Your task to perform on an android device: Open eBay Image 0: 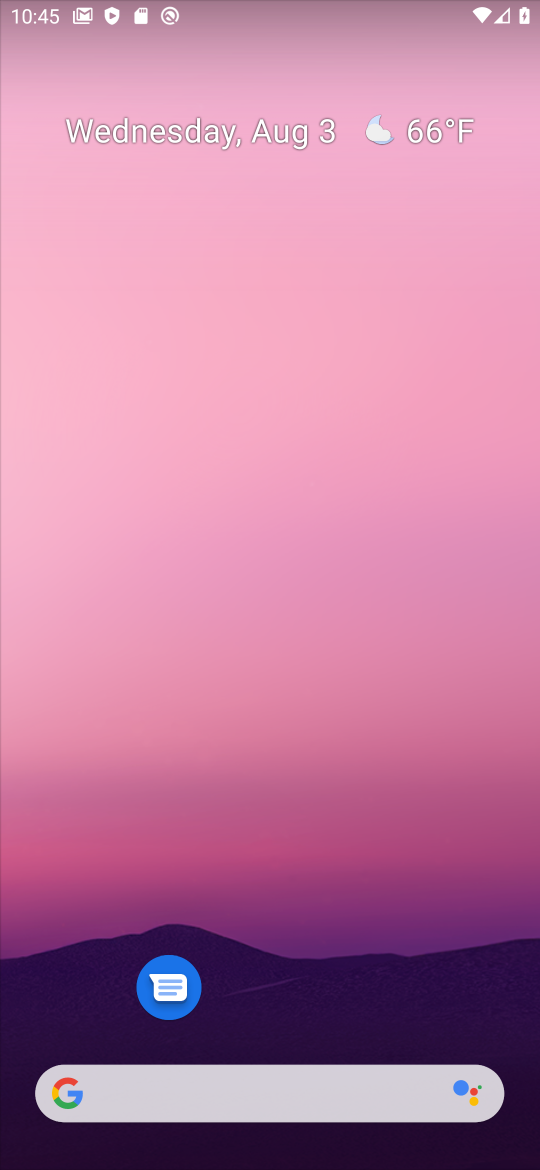
Step 0: click (276, 206)
Your task to perform on an android device: Open eBay Image 1: 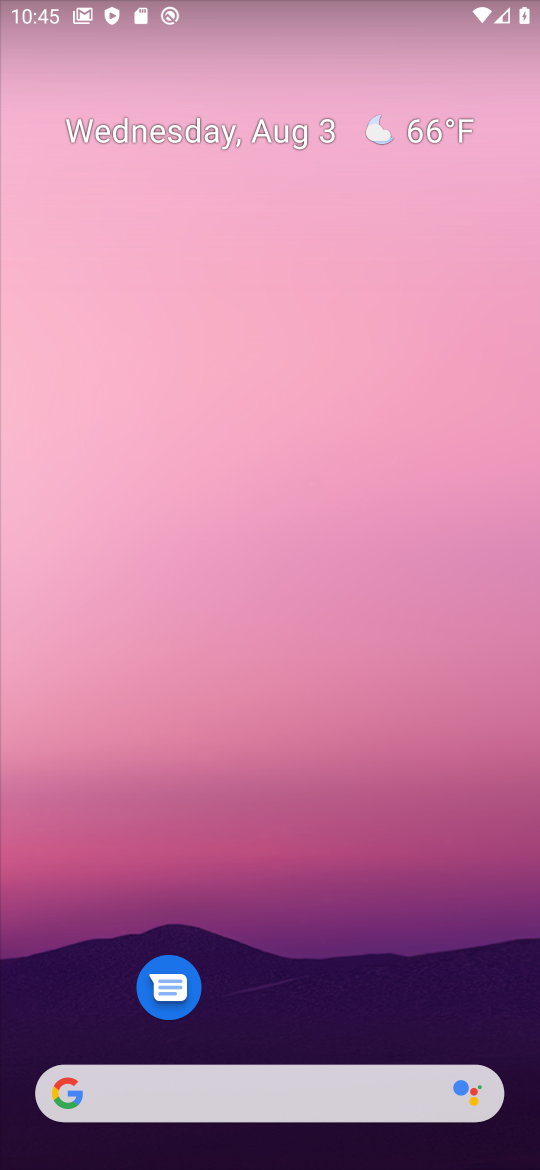
Step 1: click (299, 19)
Your task to perform on an android device: Open eBay Image 2: 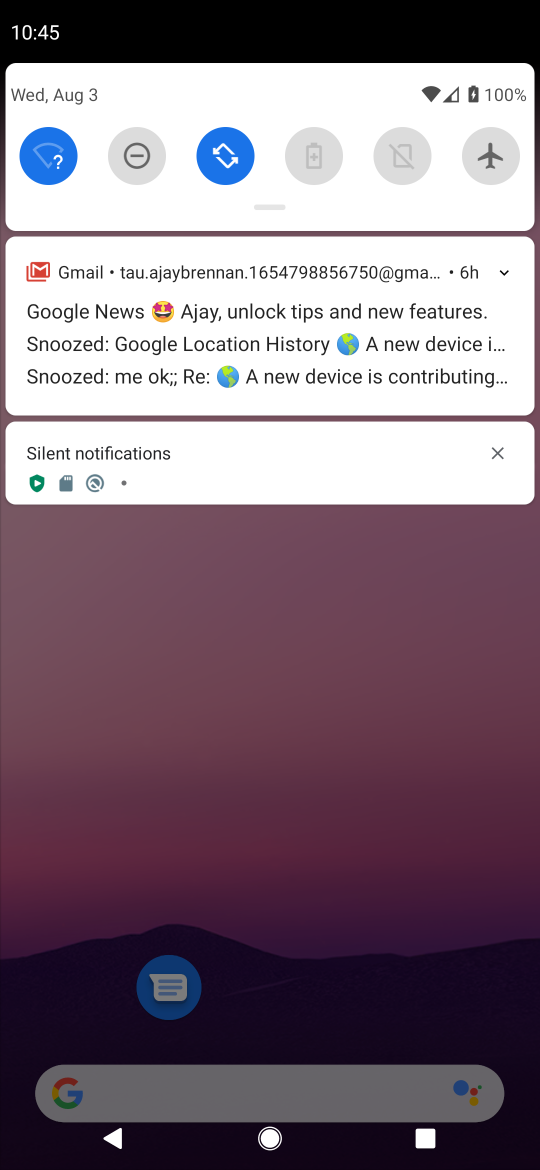
Step 2: click (214, 208)
Your task to perform on an android device: Open eBay Image 3: 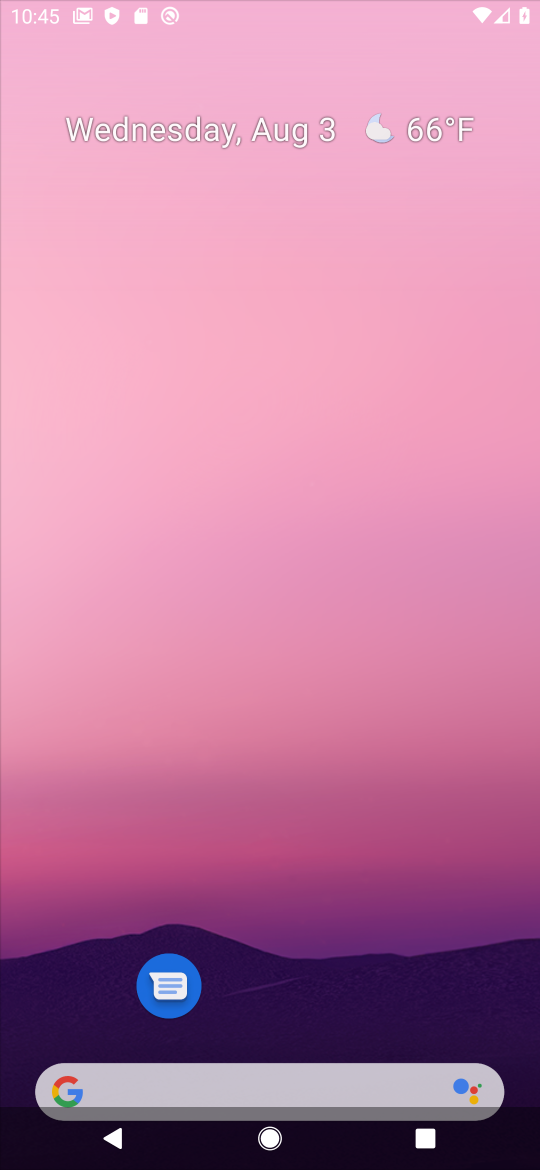
Step 3: drag from (223, 321) to (227, 122)
Your task to perform on an android device: Open eBay Image 4: 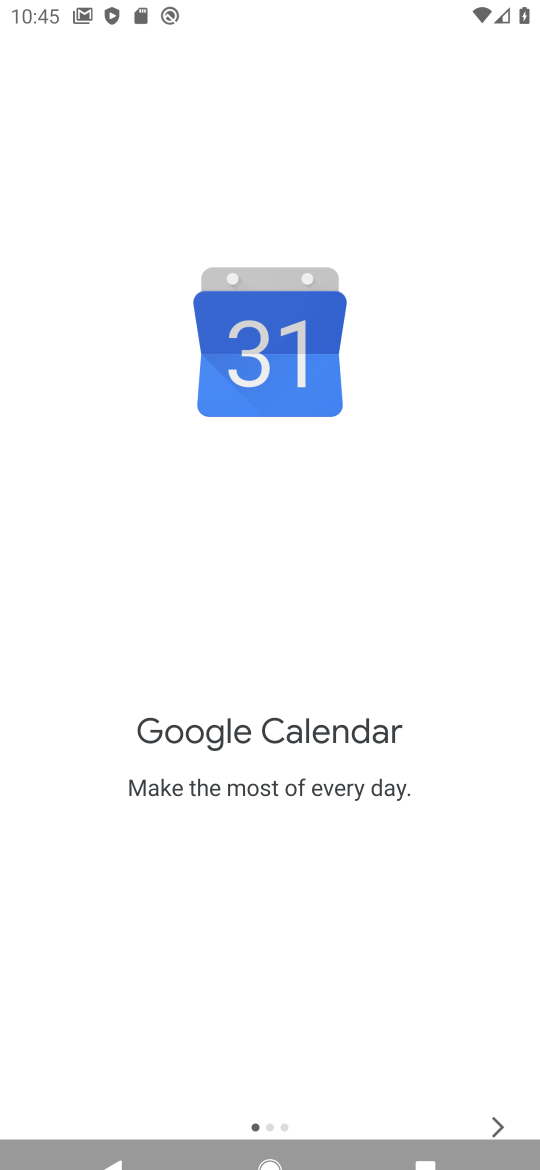
Step 4: drag from (280, 766) to (282, 124)
Your task to perform on an android device: Open eBay Image 5: 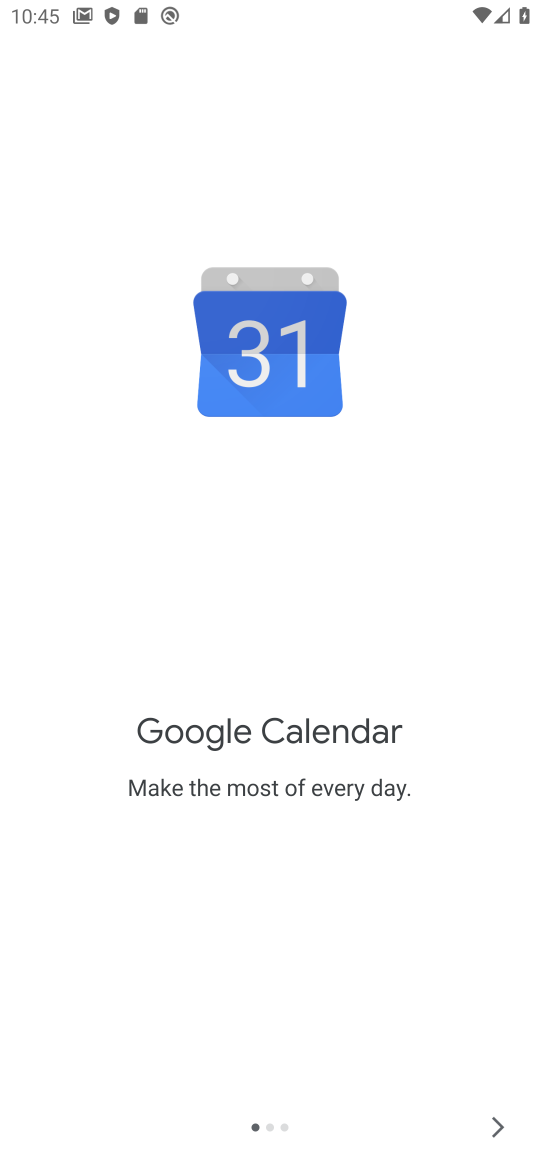
Step 5: press back button
Your task to perform on an android device: Open eBay Image 6: 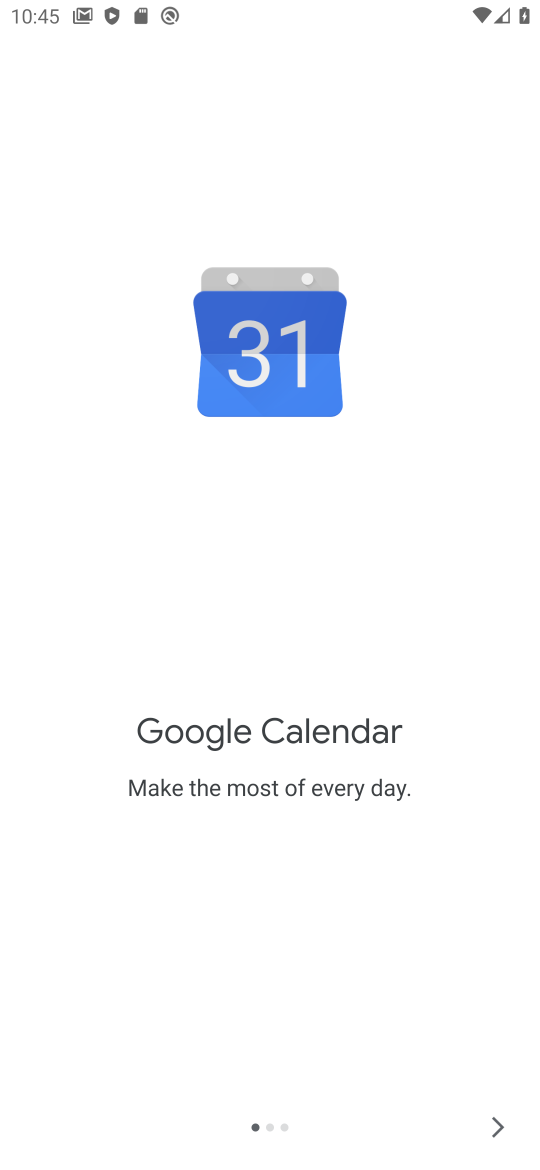
Step 6: press back button
Your task to perform on an android device: Open eBay Image 7: 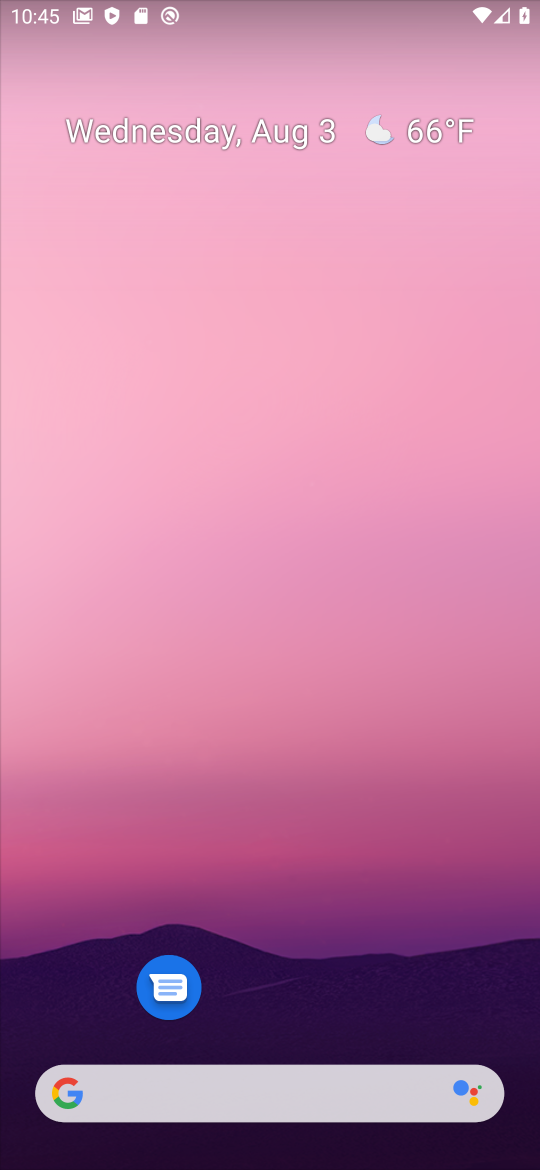
Step 7: drag from (279, 620) to (242, 223)
Your task to perform on an android device: Open eBay Image 8: 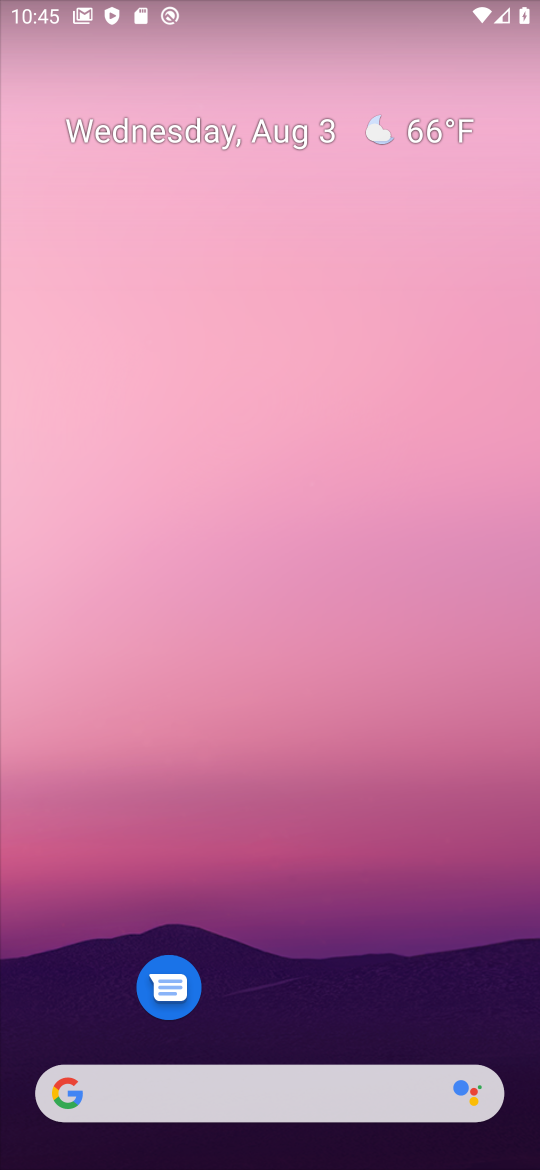
Step 8: click (231, 202)
Your task to perform on an android device: Open eBay Image 9: 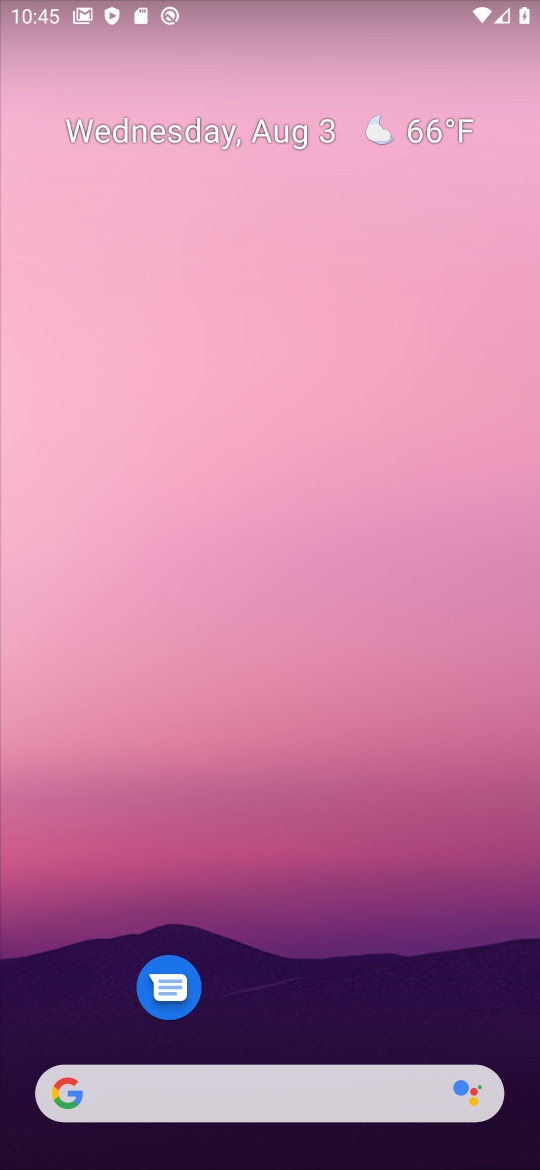
Step 9: click (201, 472)
Your task to perform on an android device: Open eBay Image 10: 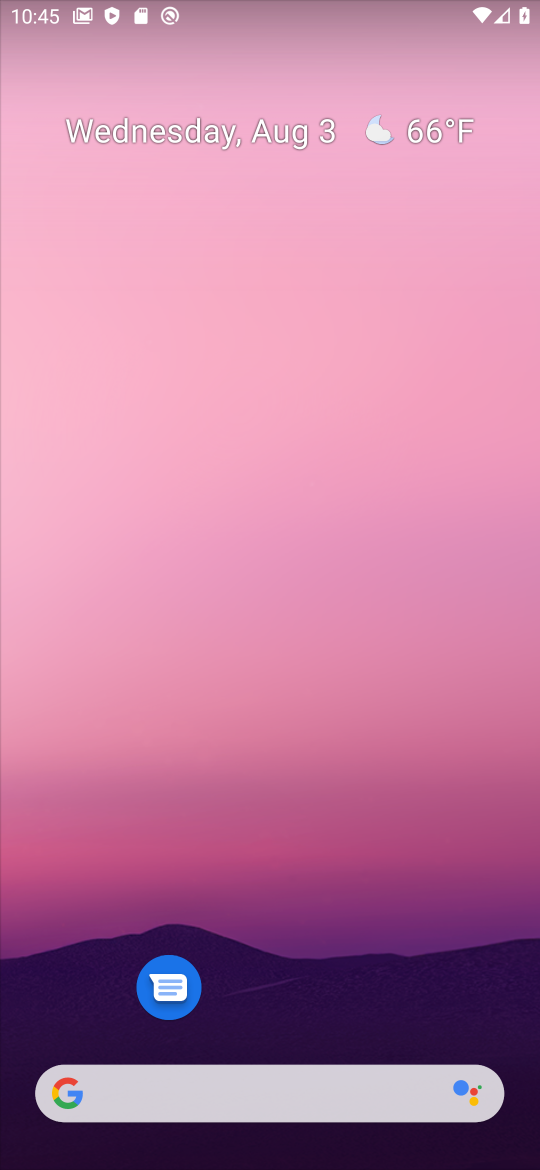
Step 10: drag from (294, 791) to (368, 64)
Your task to perform on an android device: Open eBay Image 11: 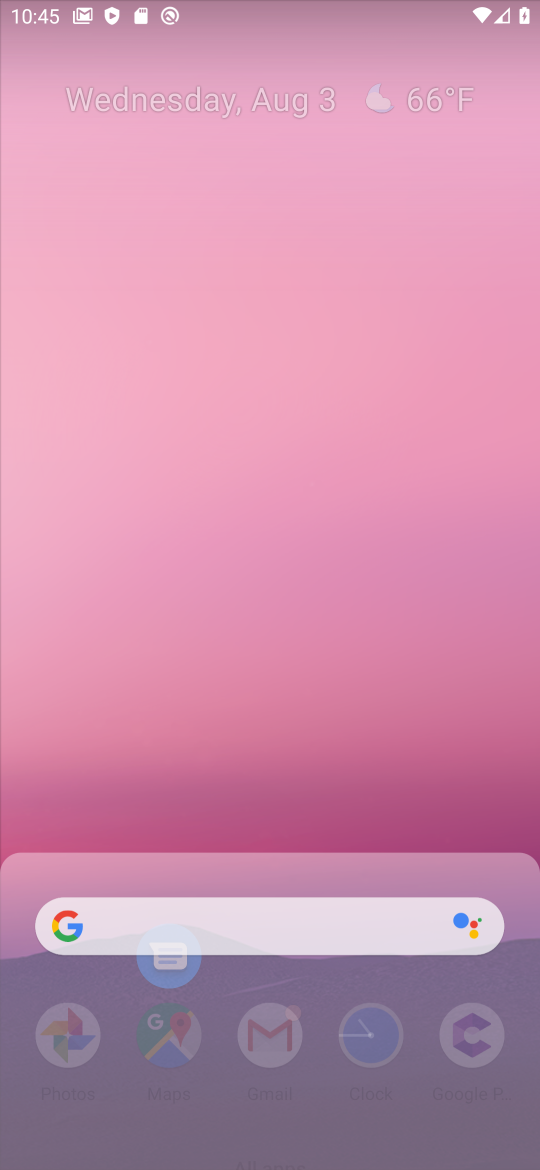
Step 11: drag from (368, 409) to (375, 247)
Your task to perform on an android device: Open eBay Image 12: 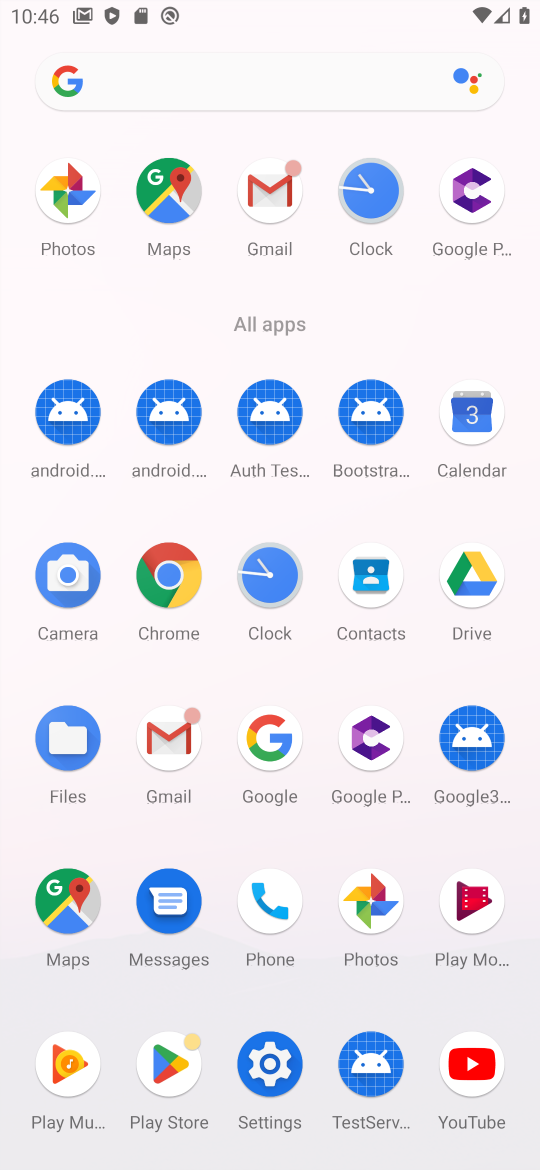
Step 12: click (173, 584)
Your task to perform on an android device: Open eBay Image 13: 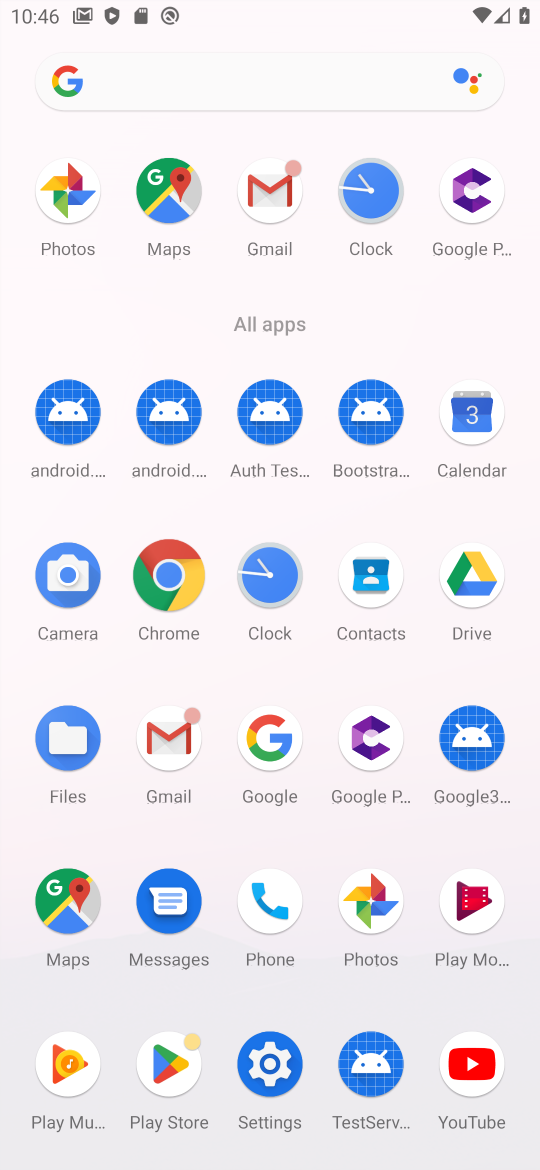
Step 13: click (164, 590)
Your task to perform on an android device: Open eBay Image 14: 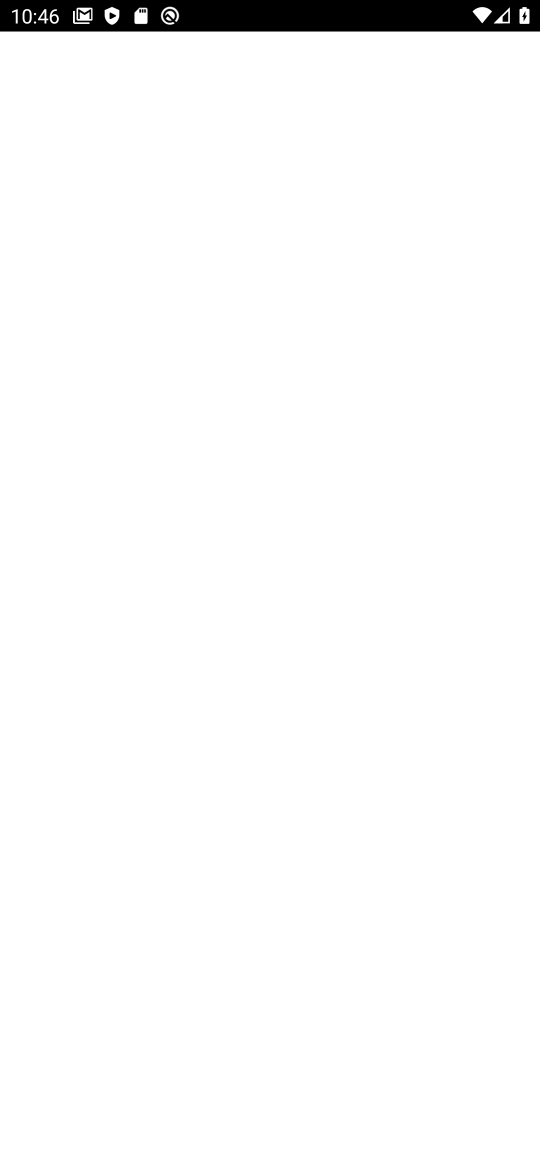
Step 14: click (167, 590)
Your task to perform on an android device: Open eBay Image 15: 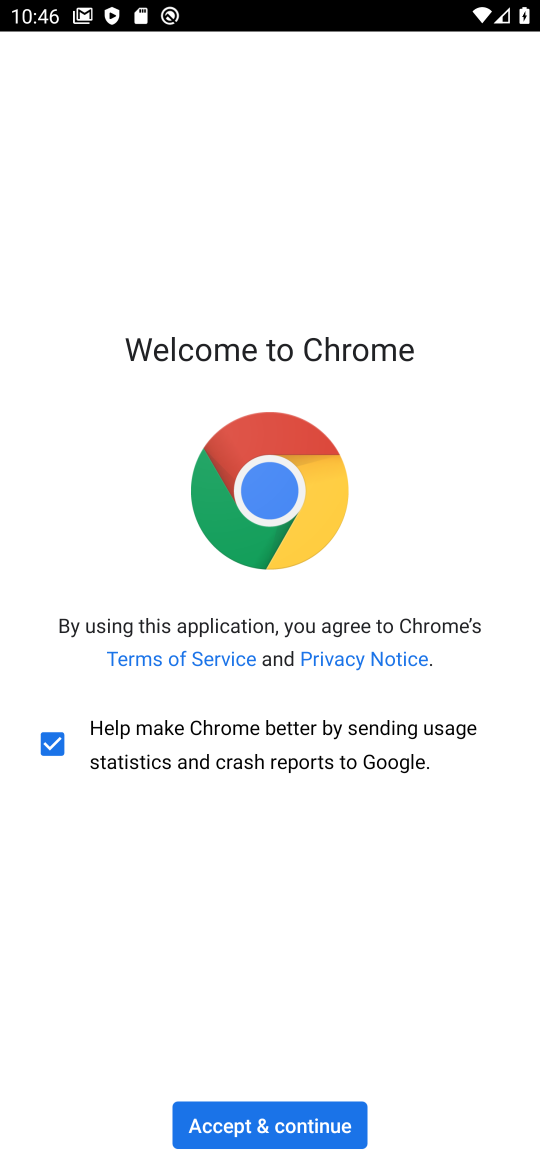
Step 15: click (270, 1116)
Your task to perform on an android device: Open eBay Image 16: 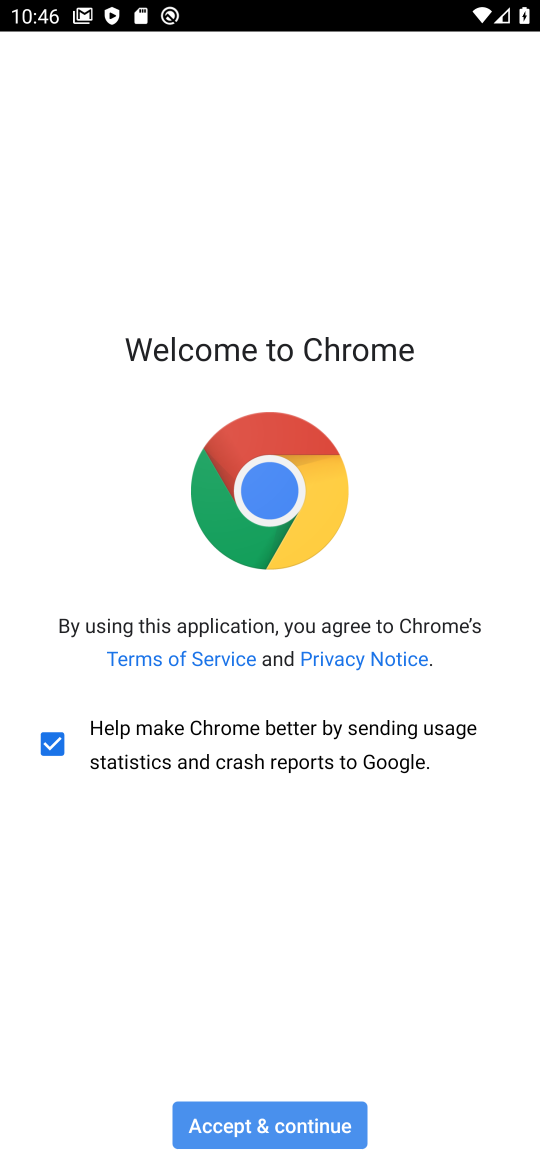
Step 16: click (298, 1126)
Your task to perform on an android device: Open eBay Image 17: 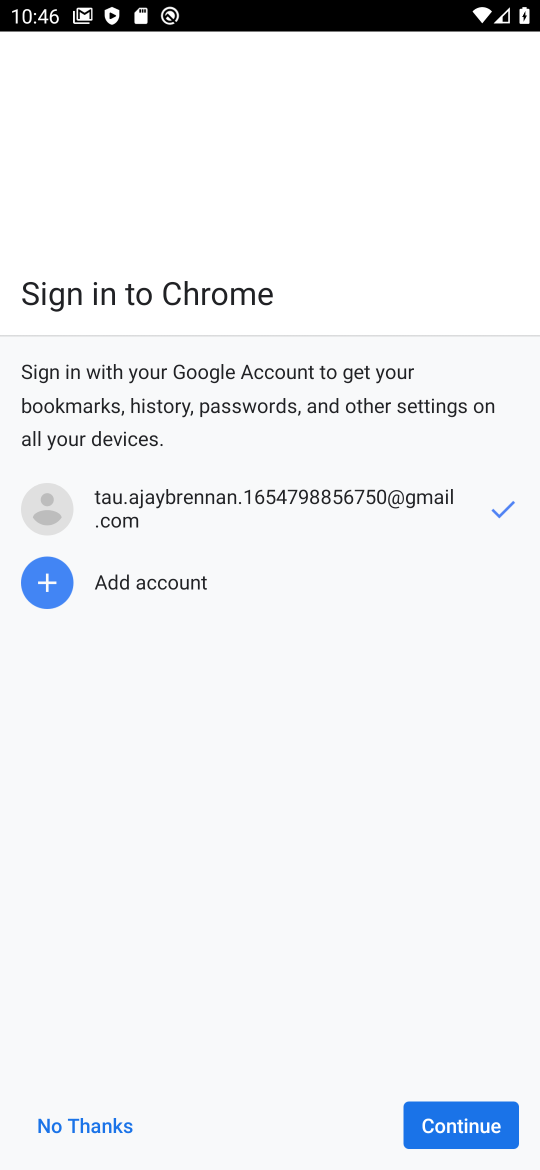
Step 17: click (120, 1107)
Your task to perform on an android device: Open eBay Image 18: 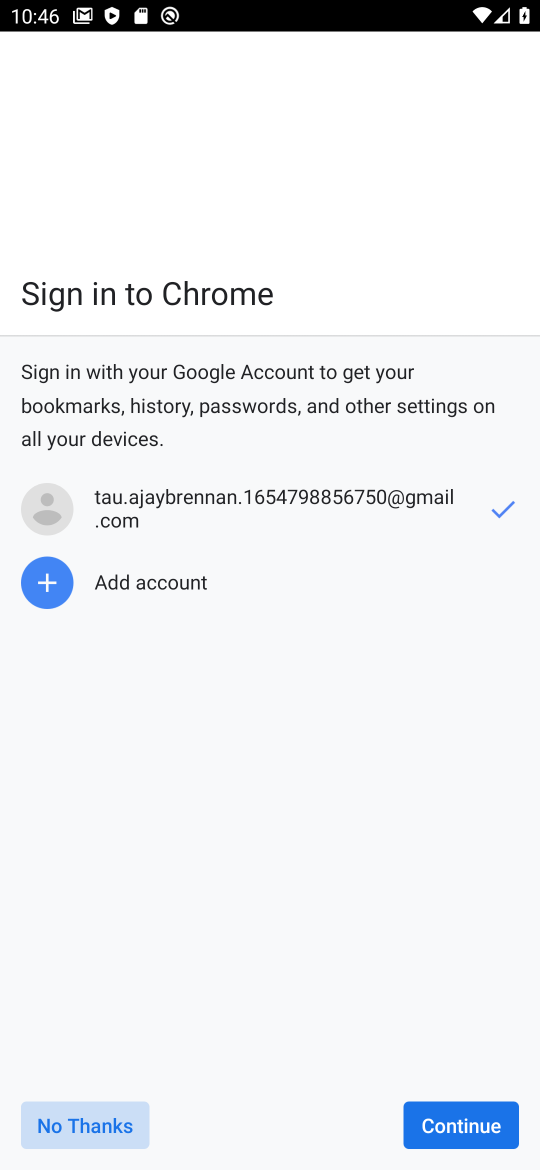
Step 18: click (116, 1114)
Your task to perform on an android device: Open eBay Image 19: 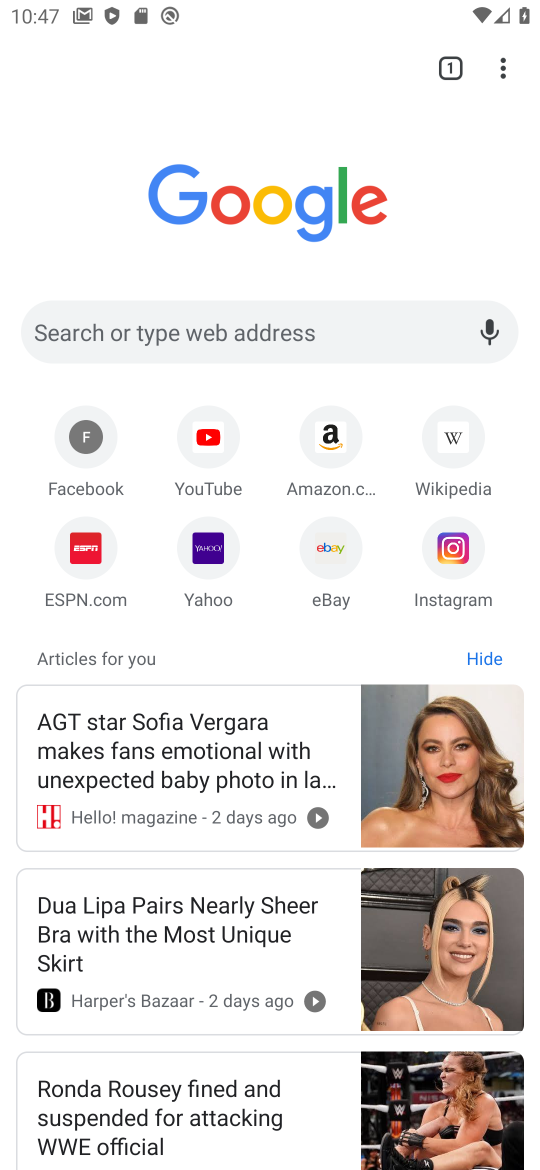
Step 19: click (337, 566)
Your task to perform on an android device: Open eBay Image 20: 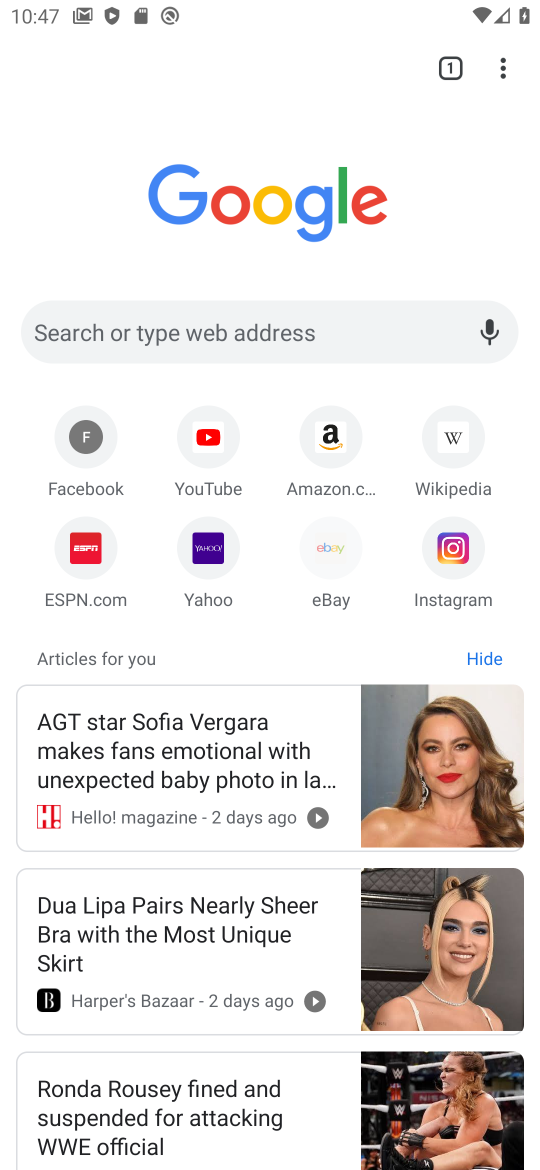
Step 20: click (335, 548)
Your task to perform on an android device: Open eBay Image 21: 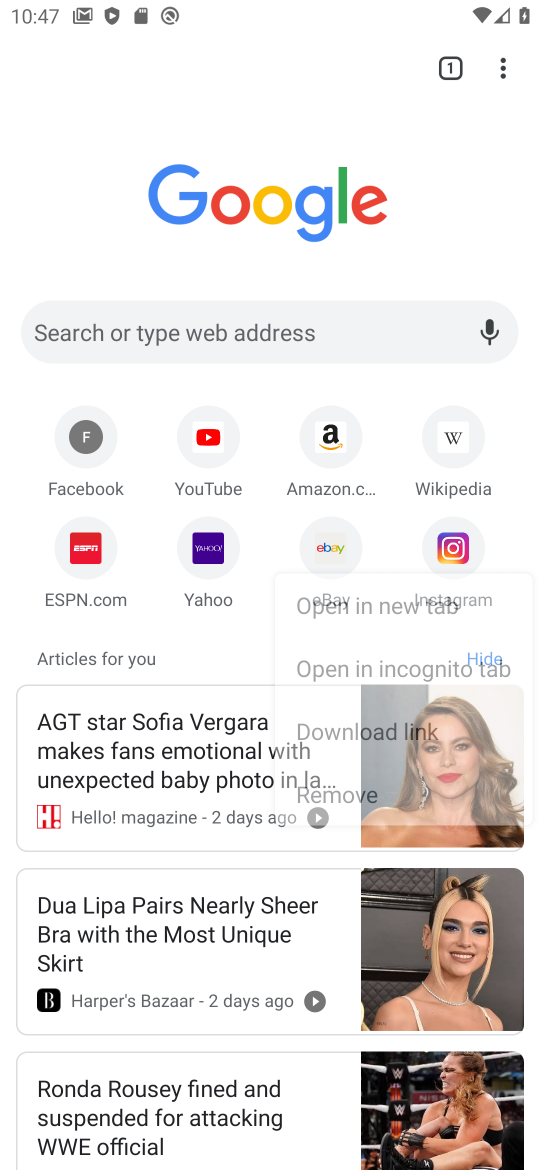
Step 21: click (340, 546)
Your task to perform on an android device: Open eBay Image 22: 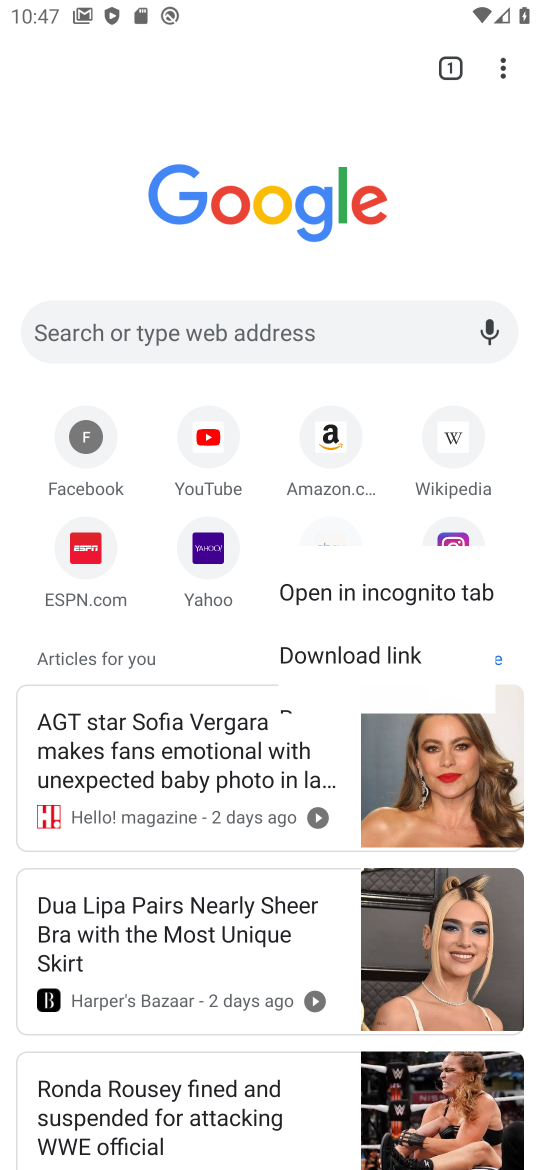
Step 22: click (318, 558)
Your task to perform on an android device: Open eBay Image 23: 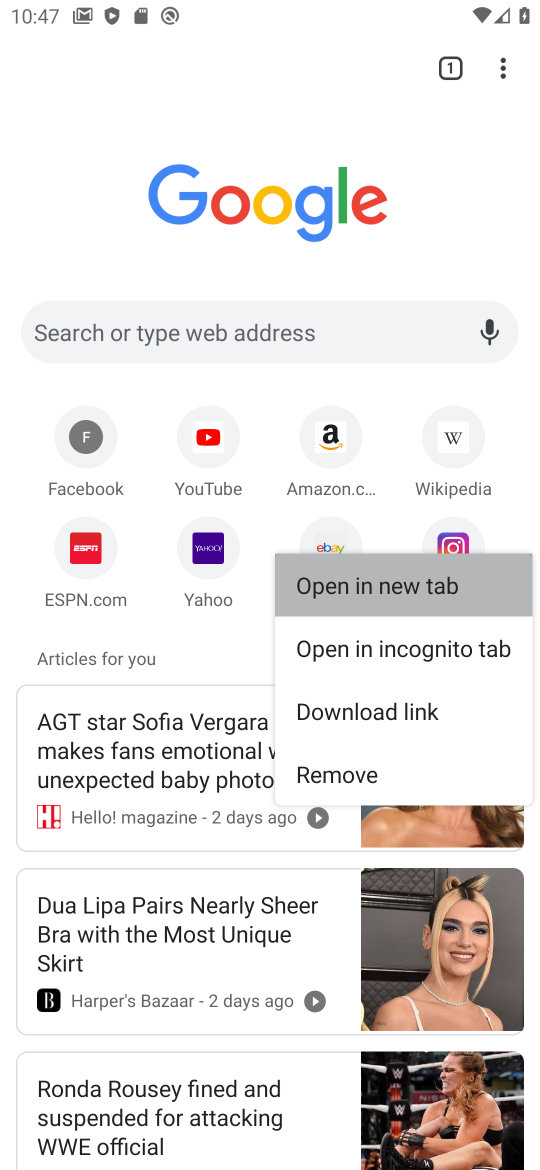
Step 23: click (318, 558)
Your task to perform on an android device: Open eBay Image 24: 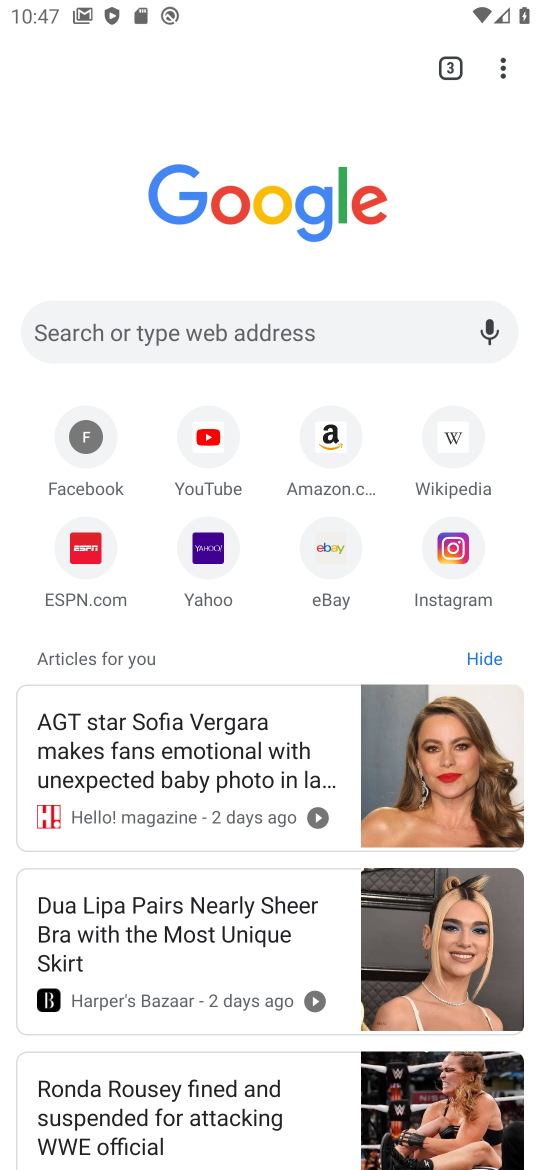
Step 24: click (290, 540)
Your task to perform on an android device: Open eBay Image 25: 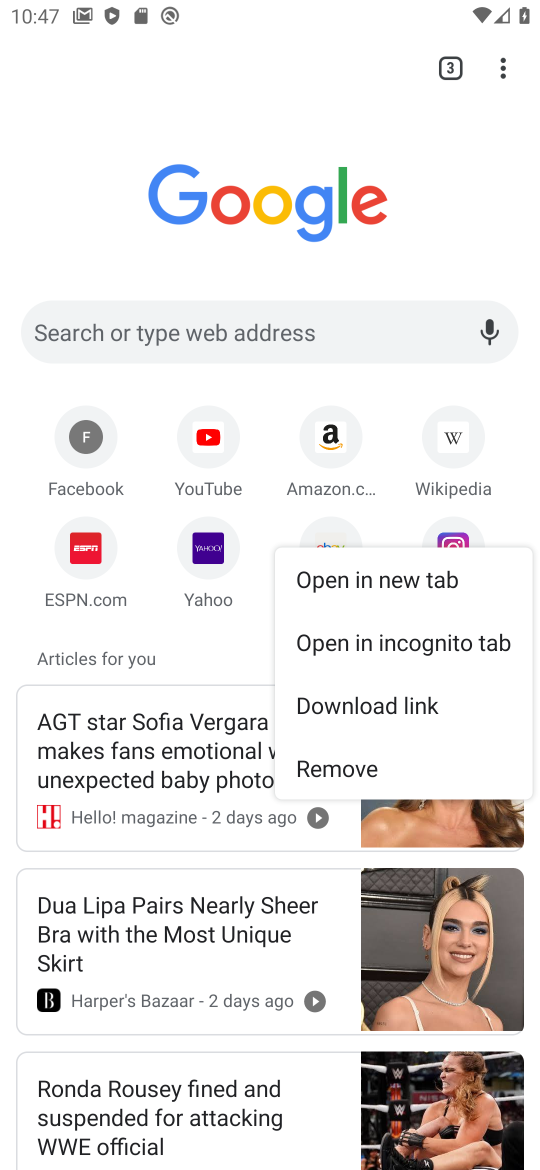
Step 25: click (307, 518)
Your task to perform on an android device: Open eBay Image 26: 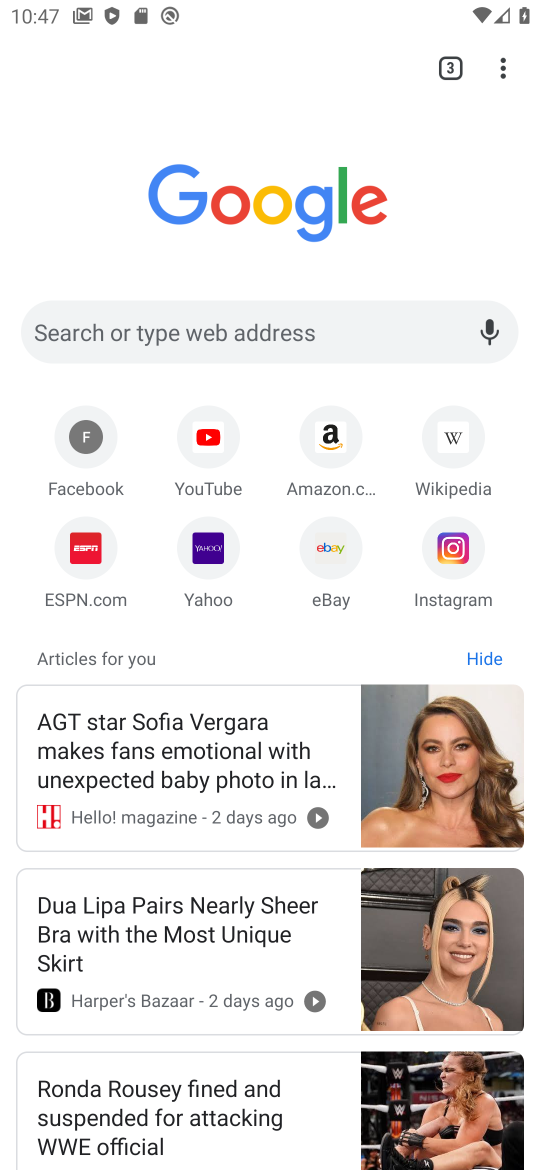
Step 26: click (306, 535)
Your task to perform on an android device: Open eBay Image 27: 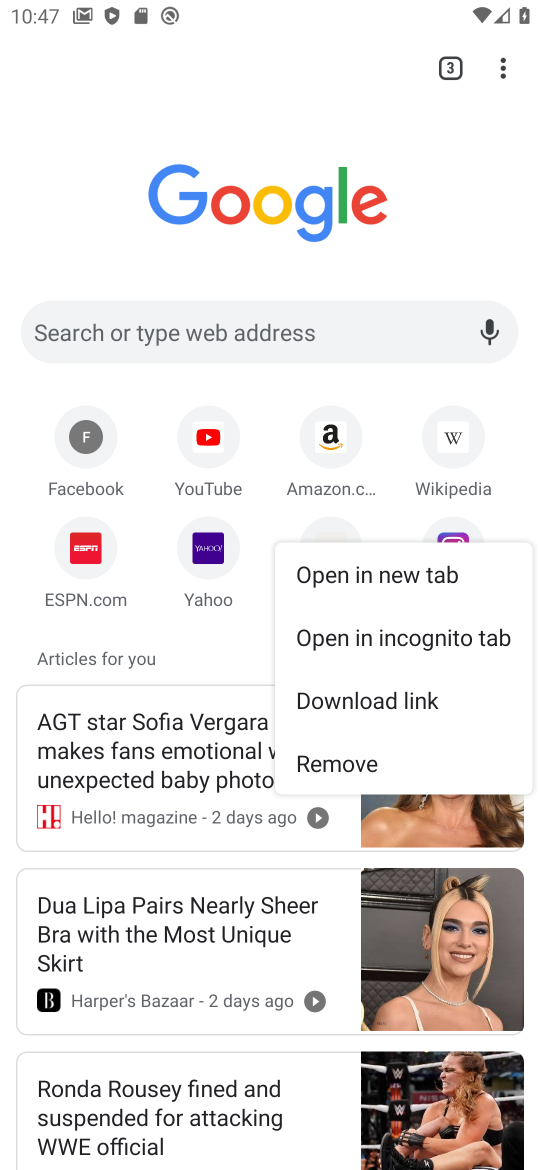
Step 27: click (320, 544)
Your task to perform on an android device: Open eBay Image 28: 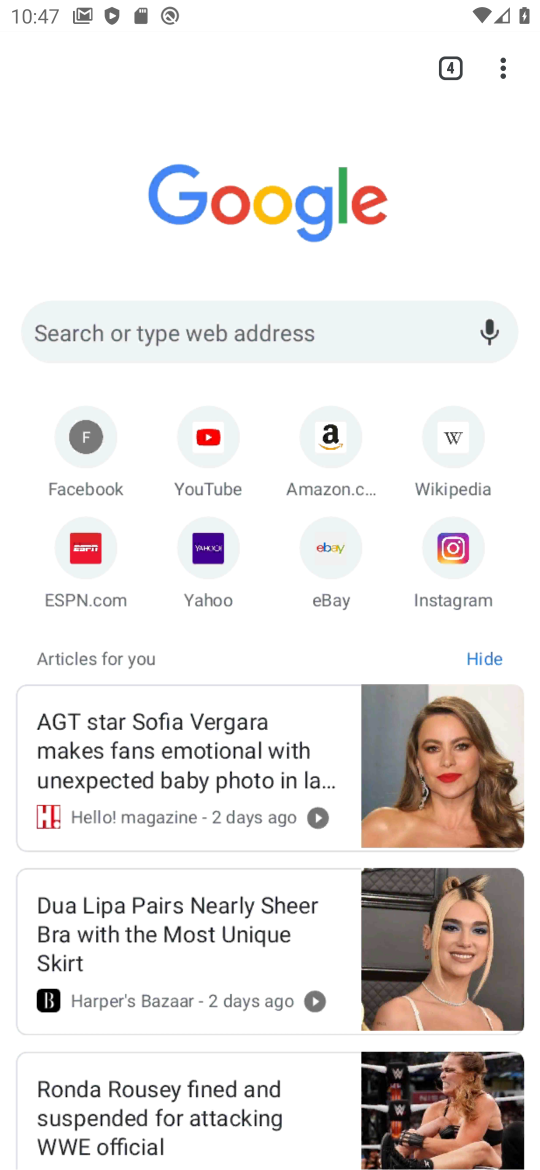
Step 28: click (248, 641)
Your task to perform on an android device: Open eBay Image 29: 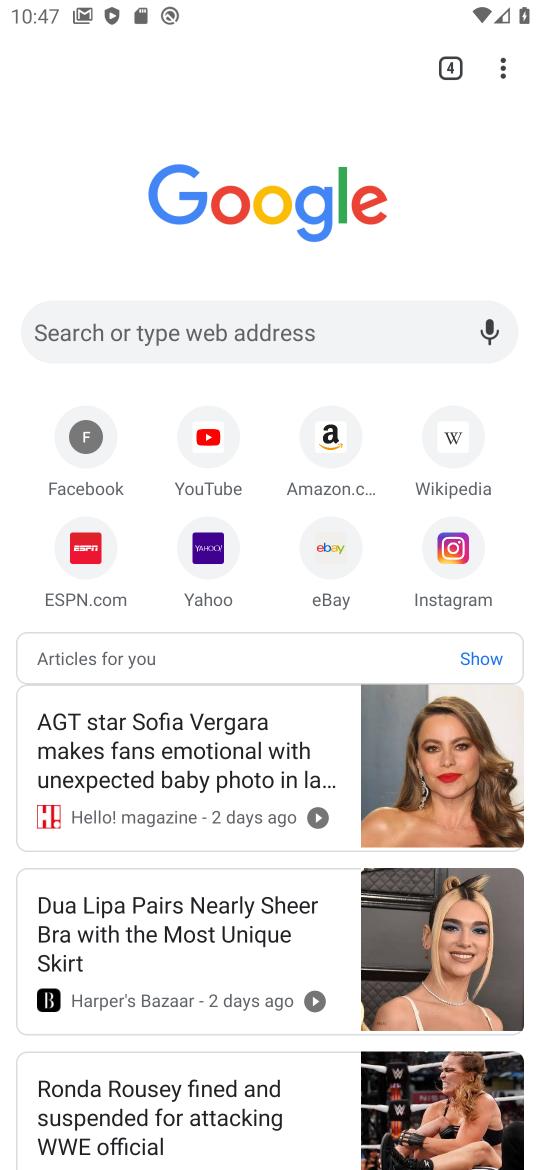
Step 29: click (360, 551)
Your task to perform on an android device: Open eBay Image 30: 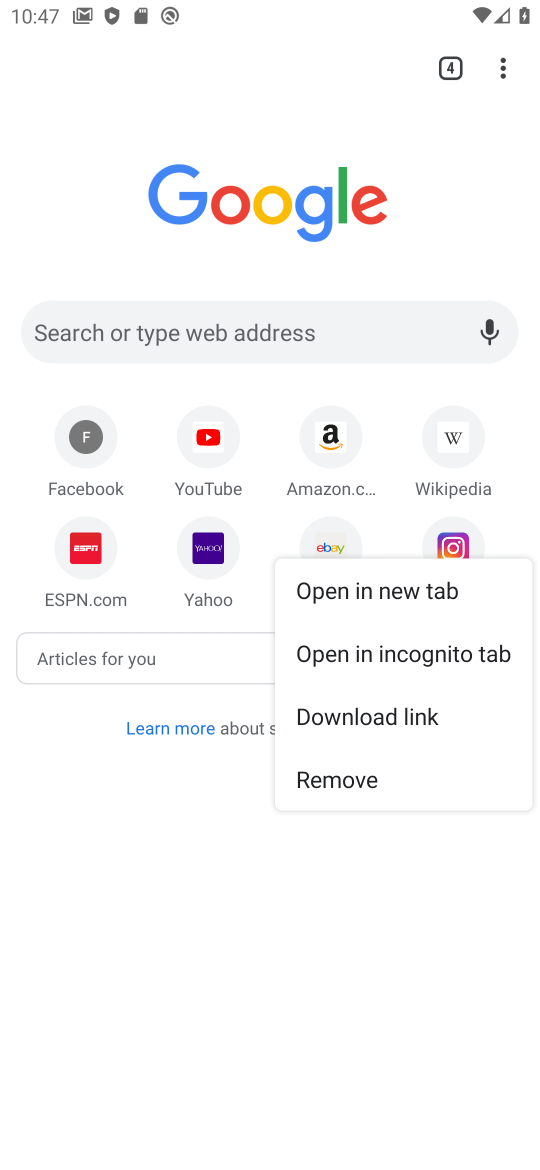
Step 30: click (333, 542)
Your task to perform on an android device: Open eBay Image 31: 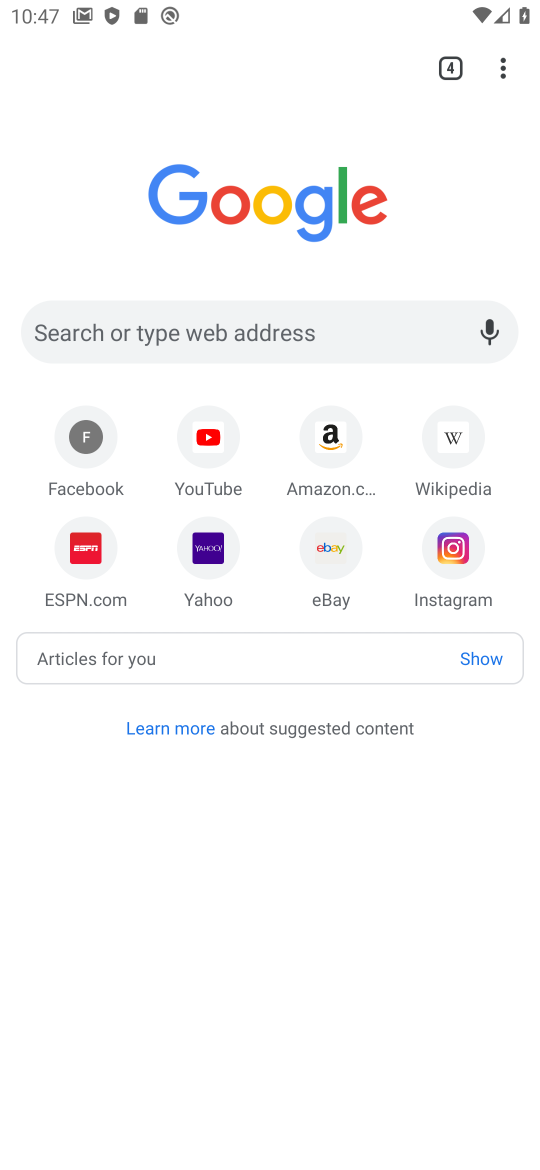
Step 31: click (339, 578)
Your task to perform on an android device: Open eBay Image 32: 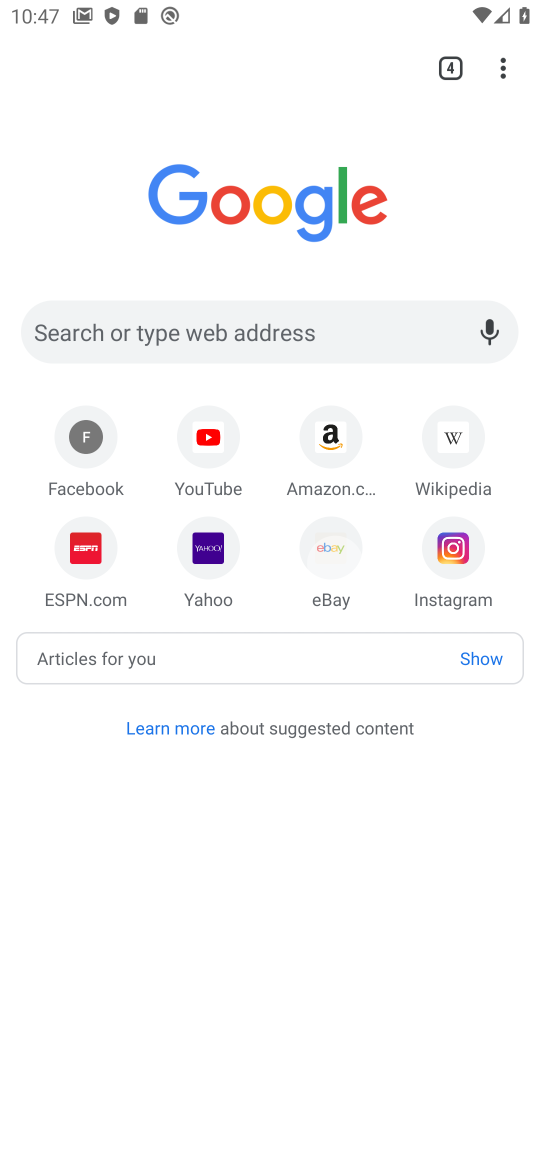
Step 32: click (323, 535)
Your task to perform on an android device: Open eBay Image 33: 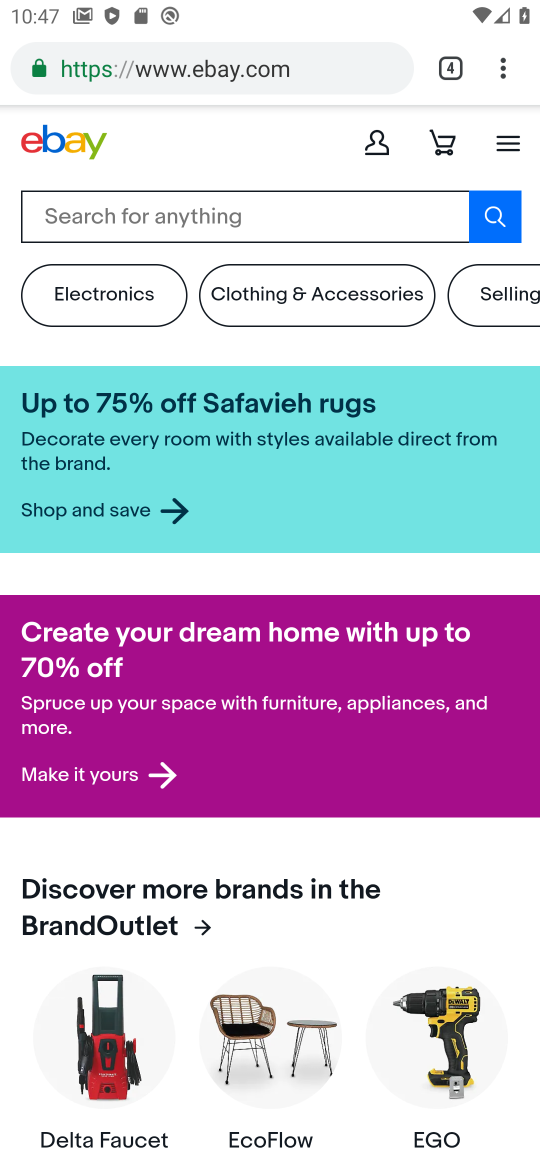
Step 33: task complete